Your task to perform on an android device: Go to settings Image 0: 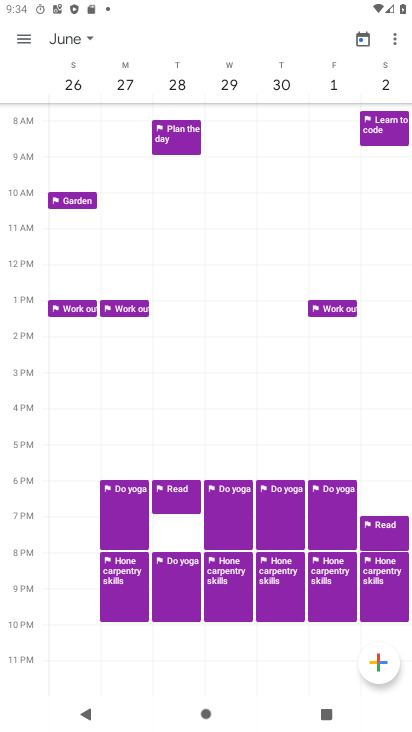
Step 0: press home button
Your task to perform on an android device: Go to settings Image 1: 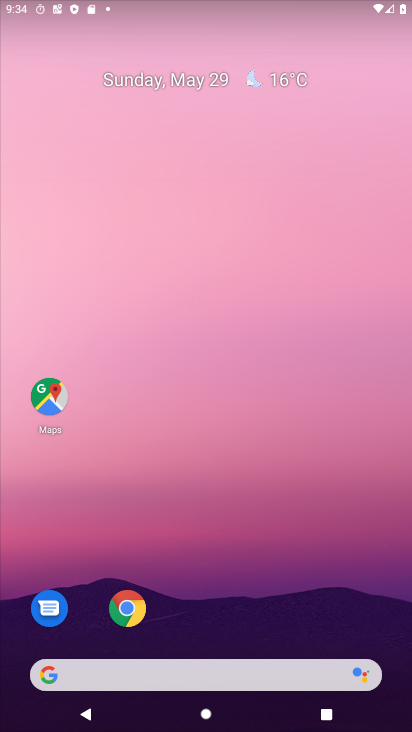
Step 1: drag from (225, 578) to (160, 13)
Your task to perform on an android device: Go to settings Image 2: 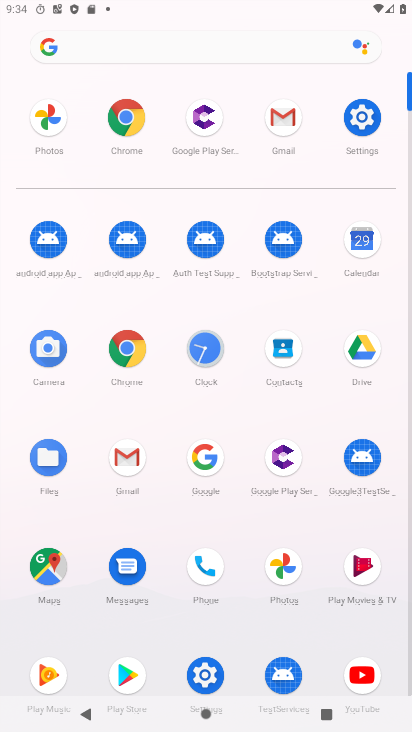
Step 2: click (366, 119)
Your task to perform on an android device: Go to settings Image 3: 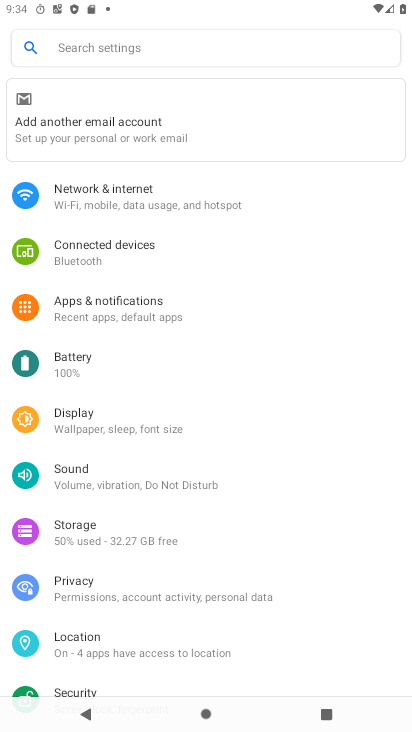
Step 3: click (97, 360)
Your task to perform on an android device: Go to settings Image 4: 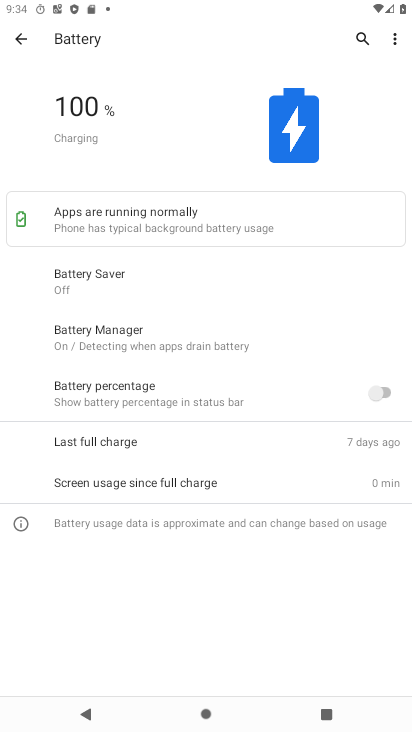
Step 4: task complete